Your task to perform on an android device: Open Google Chrome and click the shortcut for Amazon.com Image 0: 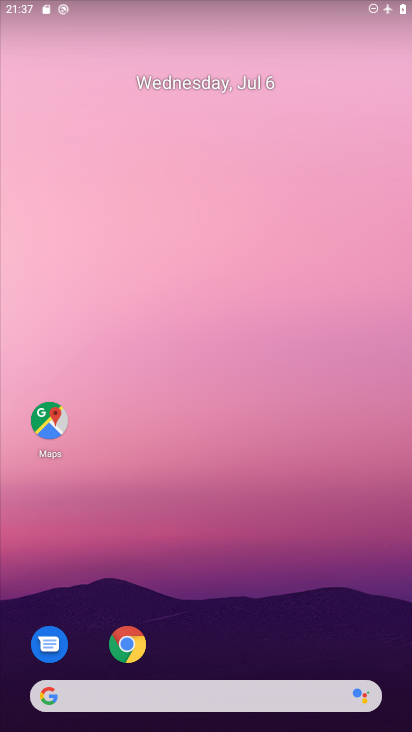
Step 0: click (118, 642)
Your task to perform on an android device: Open Google Chrome and click the shortcut for Amazon.com Image 1: 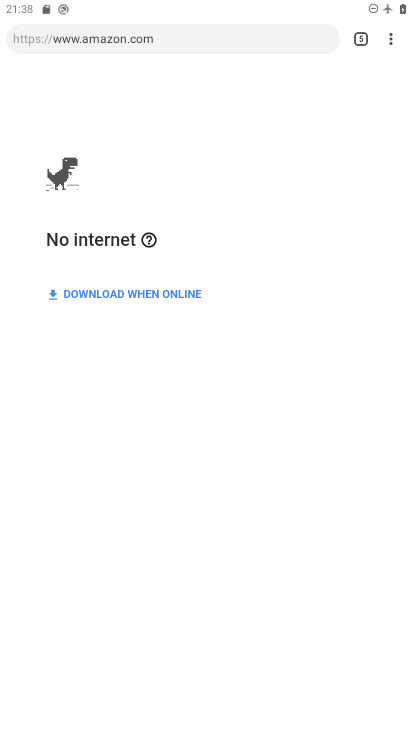
Step 1: click (362, 34)
Your task to perform on an android device: Open Google Chrome and click the shortcut for Amazon.com Image 2: 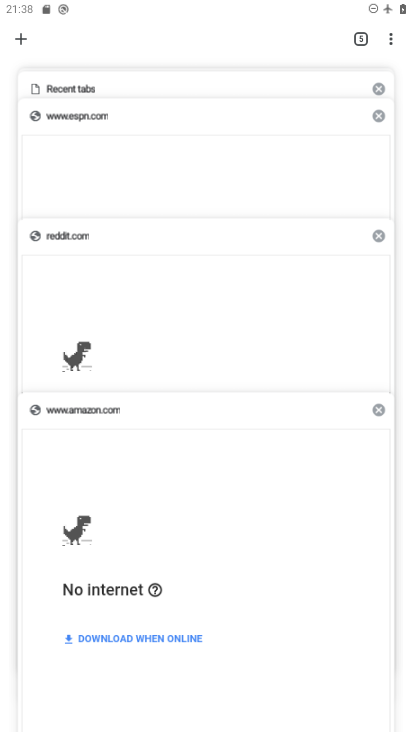
Step 2: click (190, 444)
Your task to perform on an android device: Open Google Chrome and click the shortcut for Amazon.com Image 3: 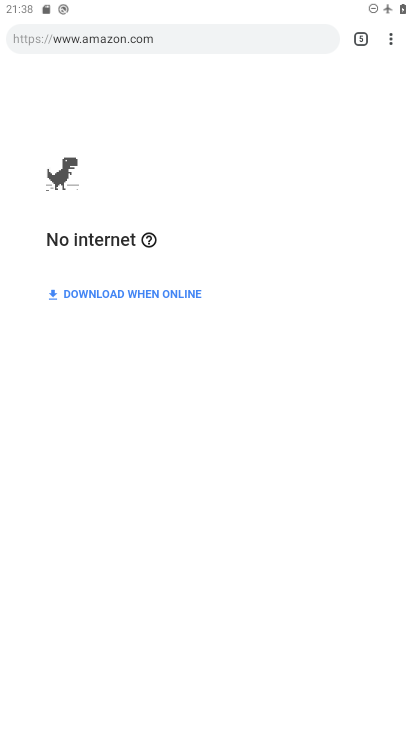
Step 3: task complete